Your task to perform on an android device: Search for a new desk on Ikea Image 0: 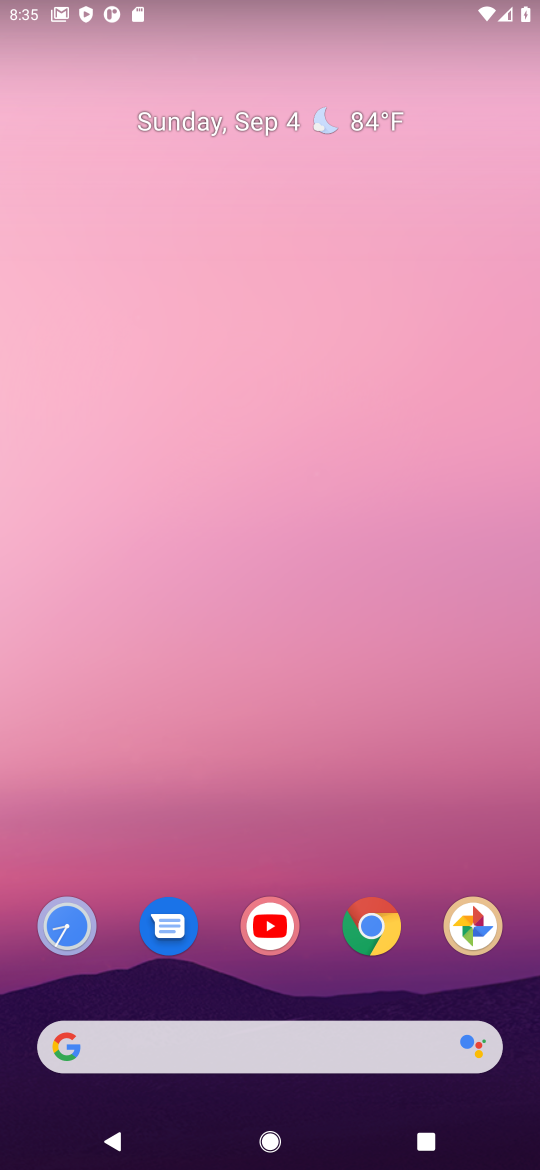
Step 0: click (200, 1055)
Your task to perform on an android device: Search for a new desk on Ikea Image 1: 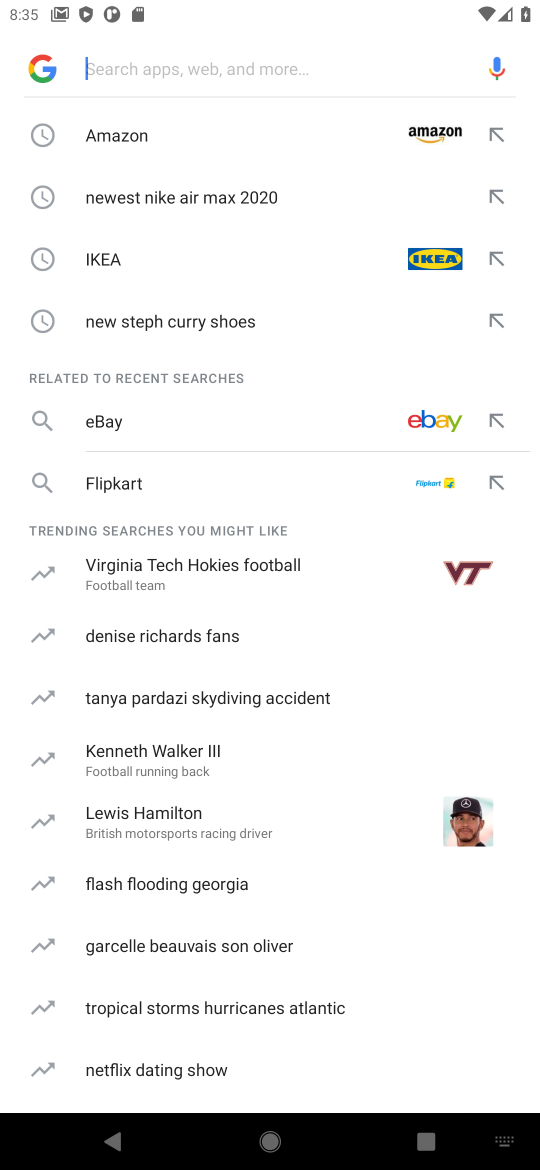
Step 1: click (109, 257)
Your task to perform on an android device: Search for a new desk on Ikea Image 2: 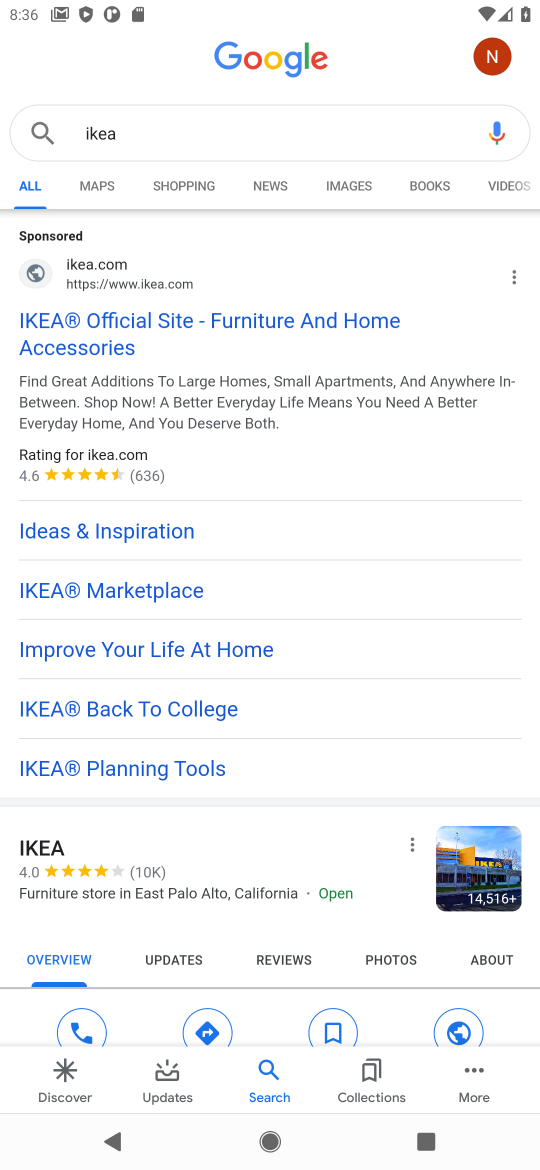
Step 2: click (108, 325)
Your task to perform on an android device: Search for a new desk on Ikea Image 3: 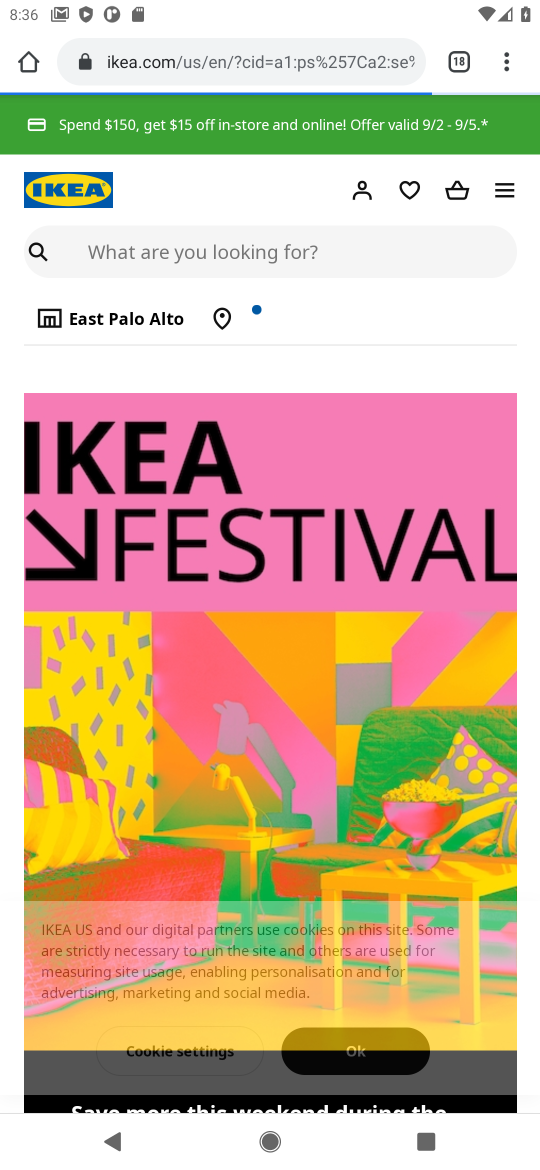
Step 3: click (252, 243)
Your task to perform on an android device: Search for a new desk on Ikea Image 4: 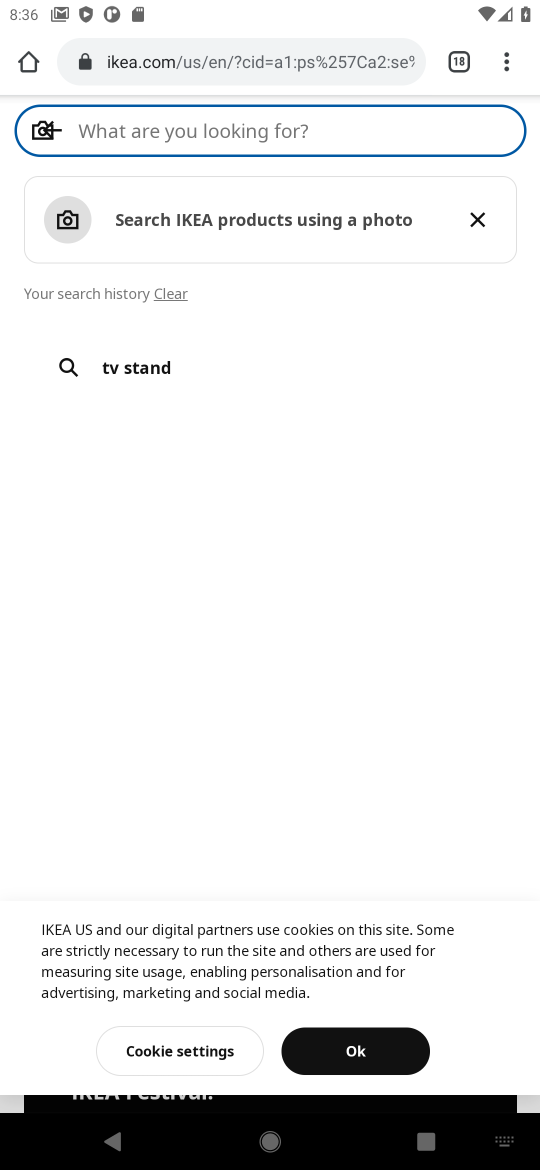
Step 4: type "new desk"
Your task to perform on an android device: Search for a new desk on Ikea Image 5: 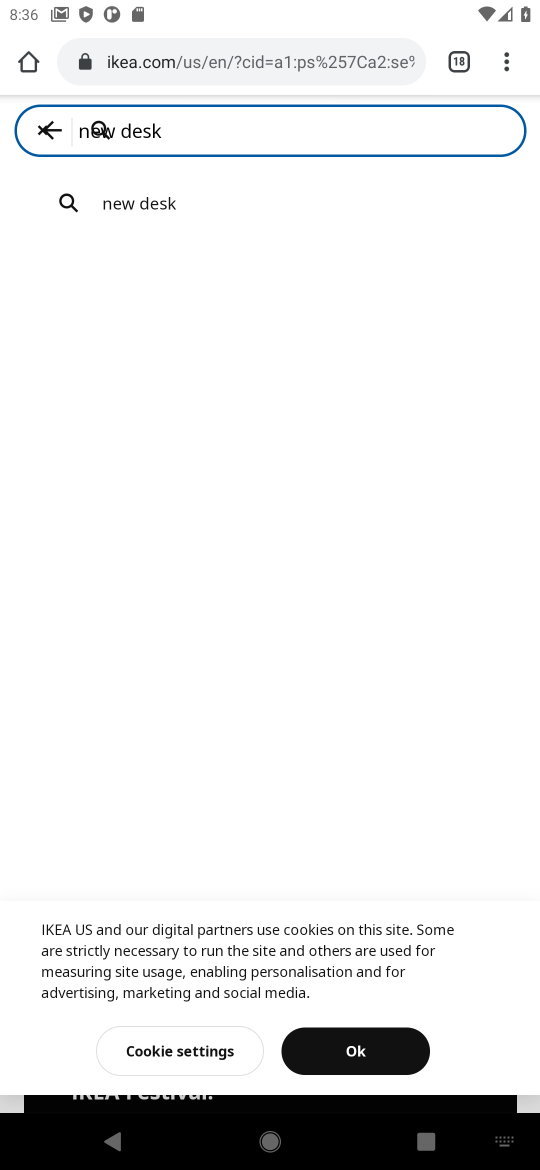
Step 5: click (66, 199)
Your task to perform on an android device: Search for a new desk on Ikea Image 6: 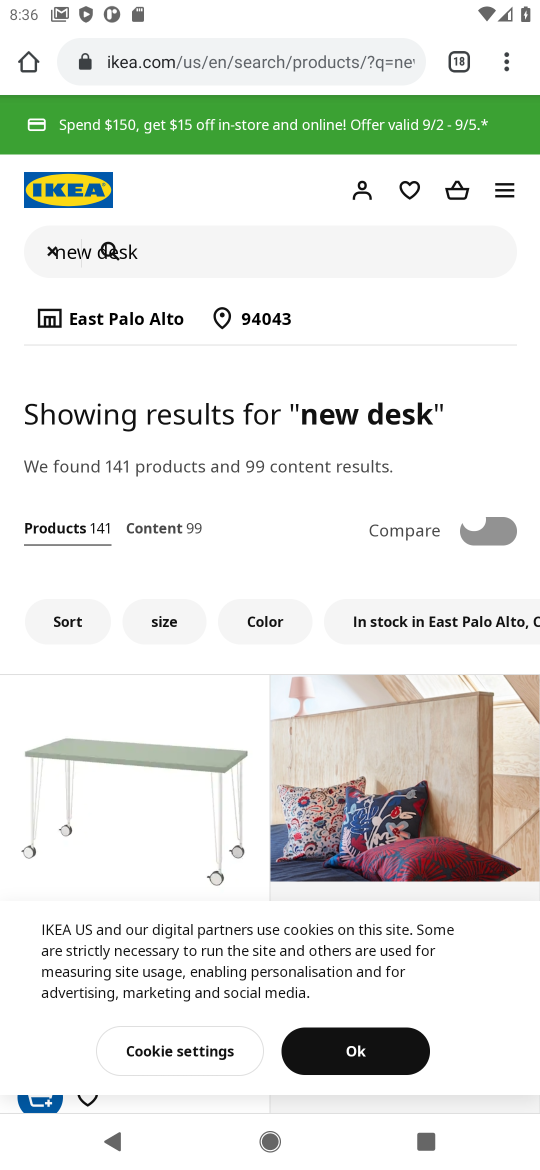
Step 6: click (344, 1059)
Your task to perform on an android device: Search for a new desk on Ikea Image 7: 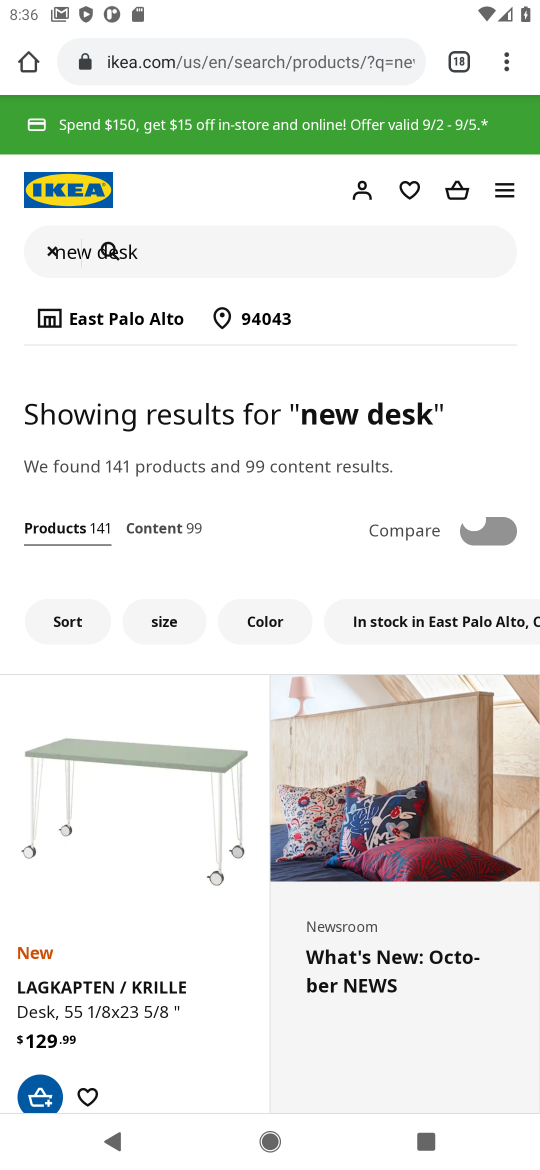
Step 7: task complete